Your task to perform on an android device: Open Youtube and go to "Your channel" Image 0: 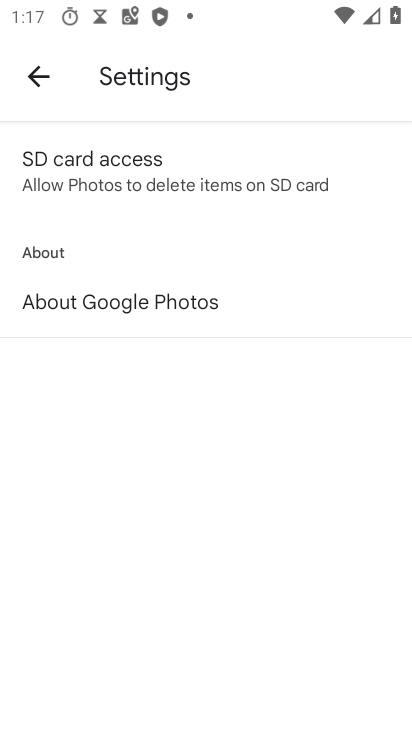
Step 0: press home button
Your task to perform on an android device: Open Youtube and go to "Your channel" Image 1: 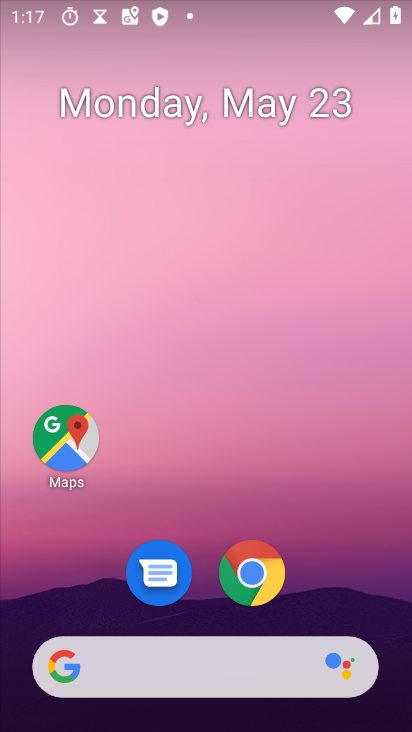
Step 1: drag from (177, 676) to (268, 269)
Your task to perform on an android device: Open Youtube and go to "Your channel" Image 2: 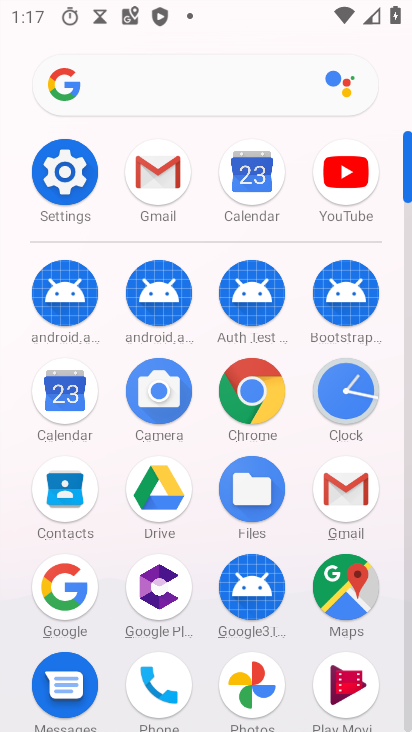
Step 2: drag from (222, 615) to (291, 232)
Your task to perform on an android device: Open Youtube and go to "Your channel" Image 3: 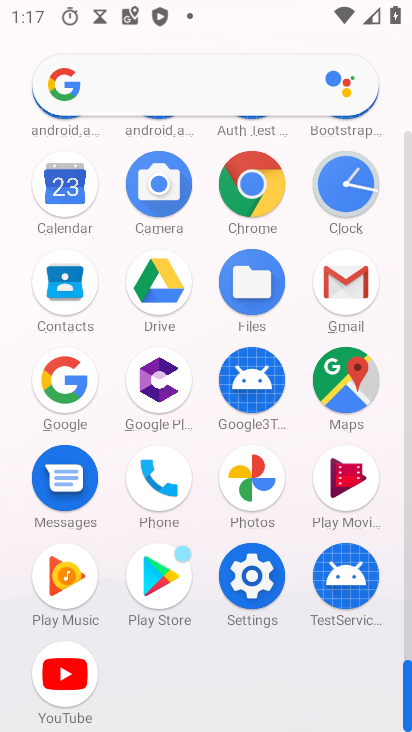
Step 3: click (67, 674)
Your task to perform on an android device: Open Youtube and go to "Your channel" Image 4: 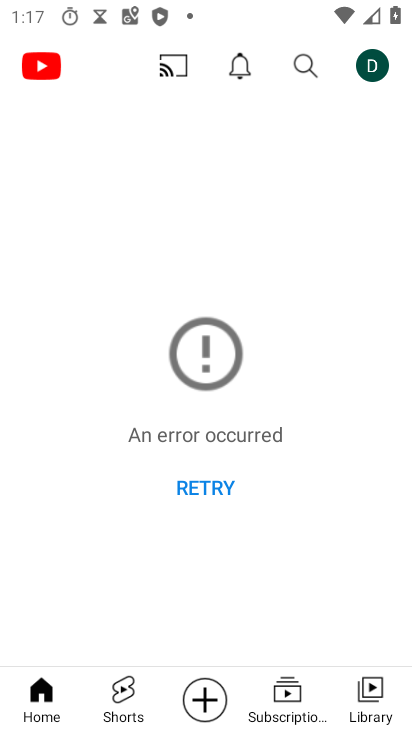
Step 4: click (214, 480)
Your task to perform on an android device: Open Youtube and go to "Your channel" Image 5: 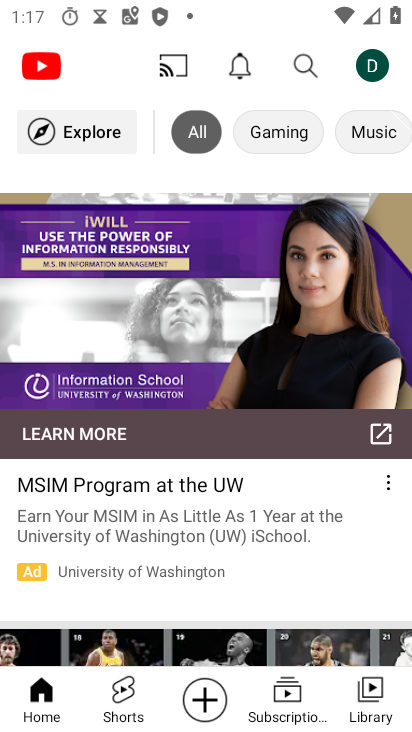
Step 5: click (369, 65)
Your task to perform on an android device: Open Youtube and go to "Your channel" Image 6: 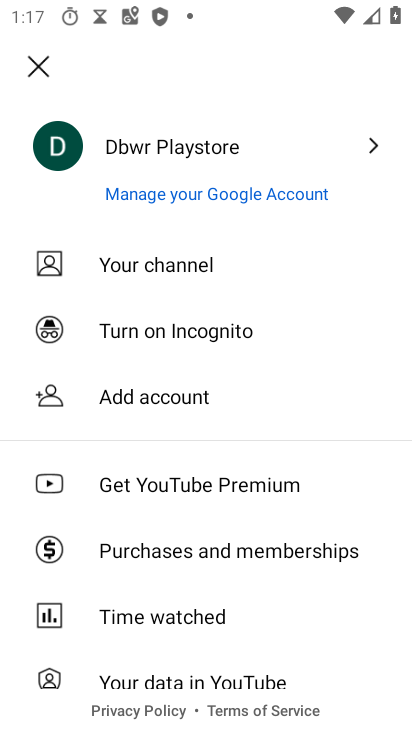
Step 6: click (192, 264)
Your task to perform on an android device: Open Youtube and go to "Your channel" Image 7: 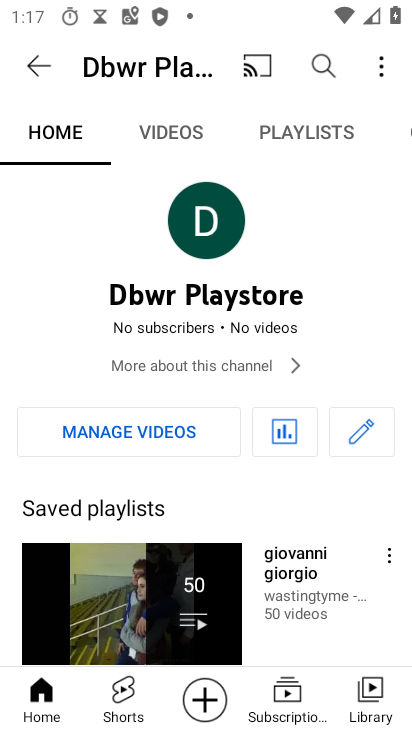
Step 7: task complete